Your task to perform on an android device: change timer sound Image 0: 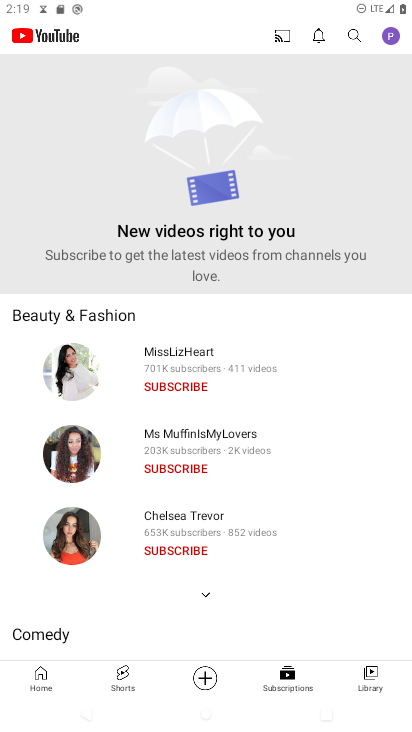
Step 0: press home button
Your task to perform on an android device: change timer sound Image 1: 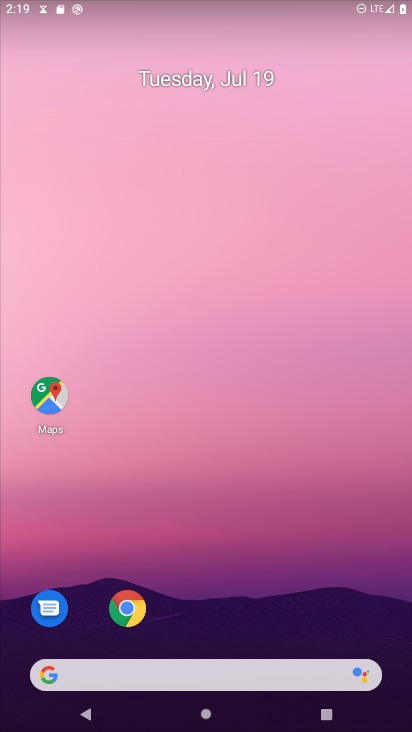
Step 1: drag from (241, 666) to (188, 49)
Your task to perform on an android device: change timer sound Image 2: 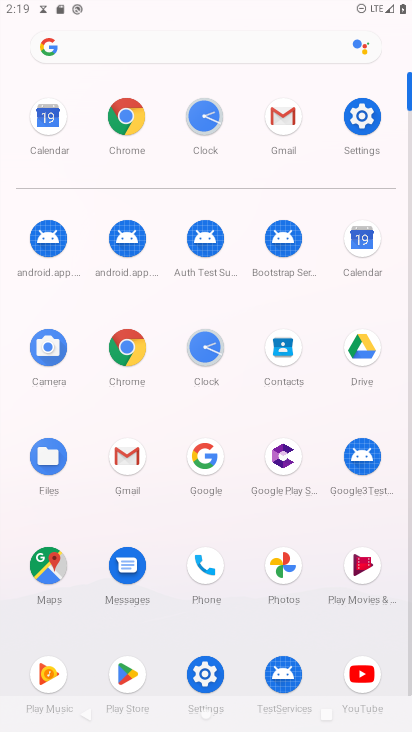
Step 2: click (202, 351)
Your task to perform on an android device: change timer sound Image 3: 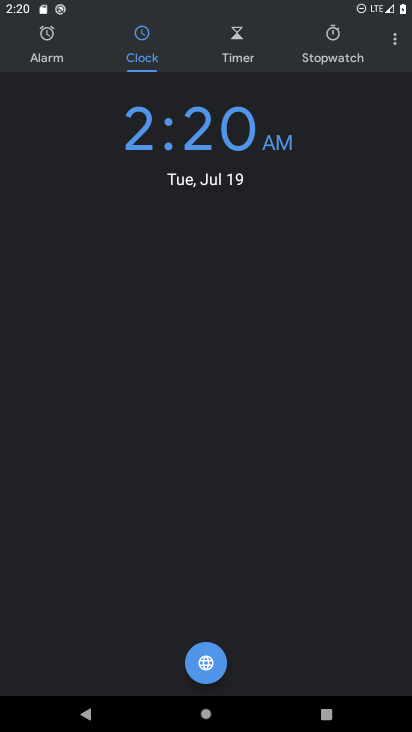
Step 3: click (399, 36)
Your task to perform on an android device: change timer sound Image 4: 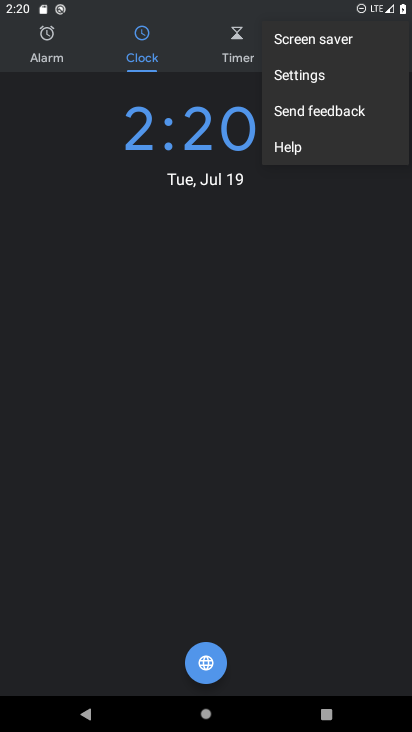
Step 4: click (308, 76)
Your task to perform on an android device: change timer sound Image 5: 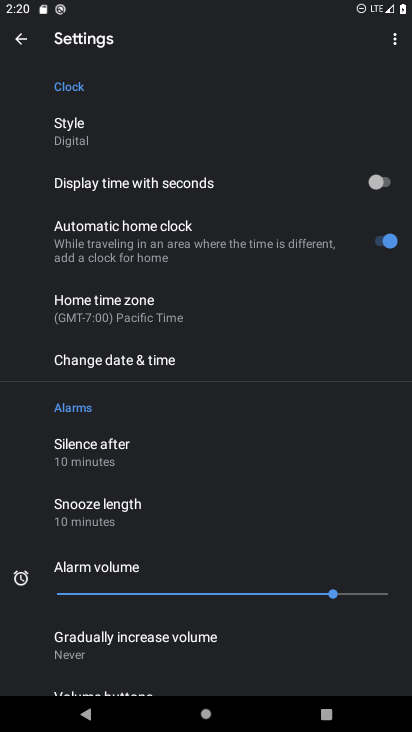
Step 5: drag from (143, 579) to (109, 82)
Your task to perform on an android device: change timer sound Image 6: 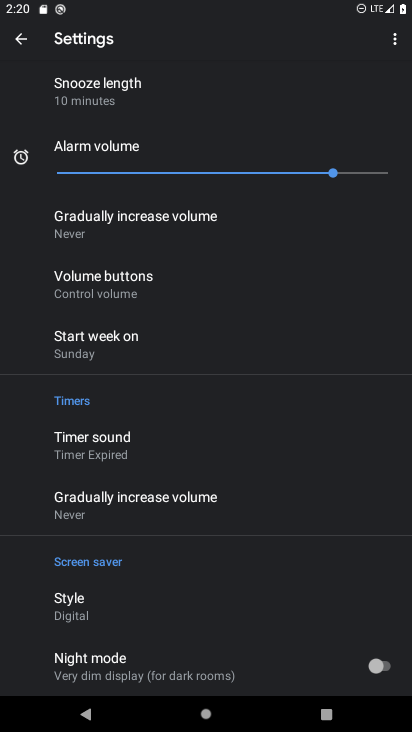
Step 6: click (143, 443)
Your task to perform on an android device: change timer sound Image 7: 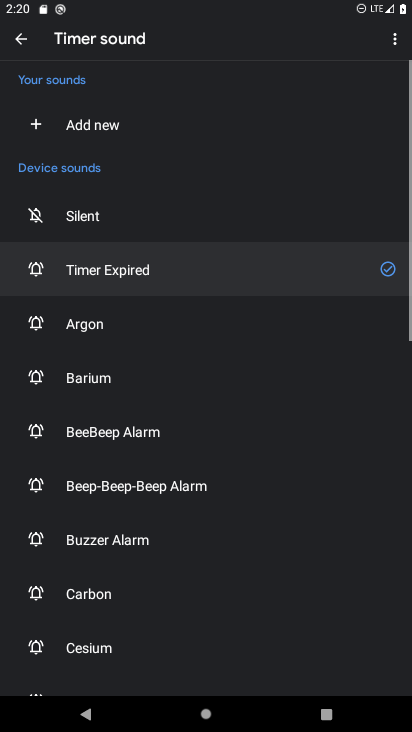
Step 7: click (93, 339)
Your task to perform on an android device: change timer sound Image 8: 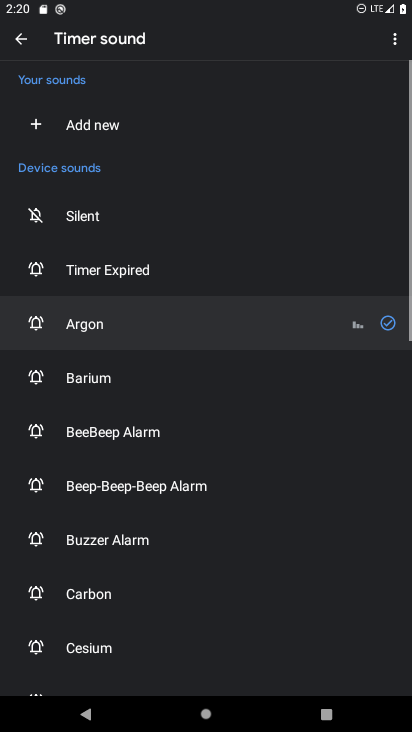
Step 8: task complete